Your task to perform on an android device: clear history in the chrome app Image 0: 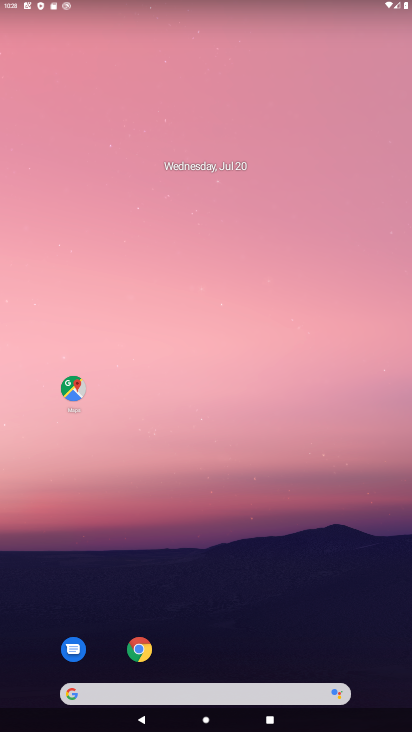
Step 0: click (133, 645)
Your task to perform on an android device: clear history in the chrome app Image 1: 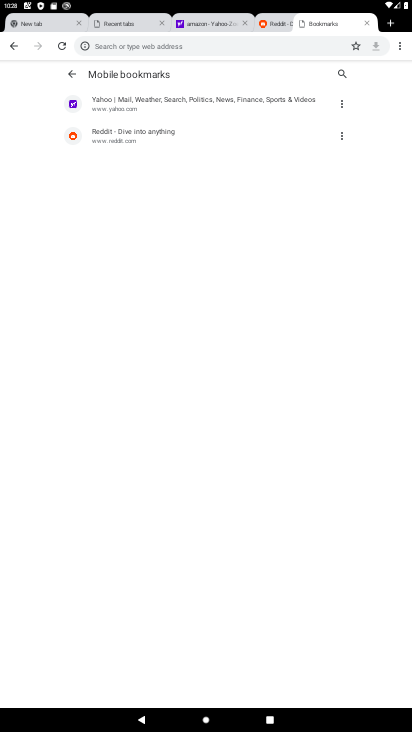
Step 1: click (401, 40)
Your task to perform on an android device: clear history in the chrome app Image 2: 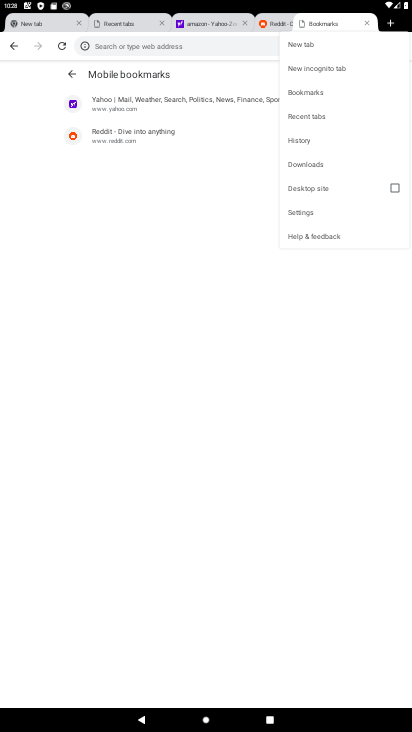
Step 2: click (301, 206)
Your task to perform on an android device: clear history in the chrome app Image 3: 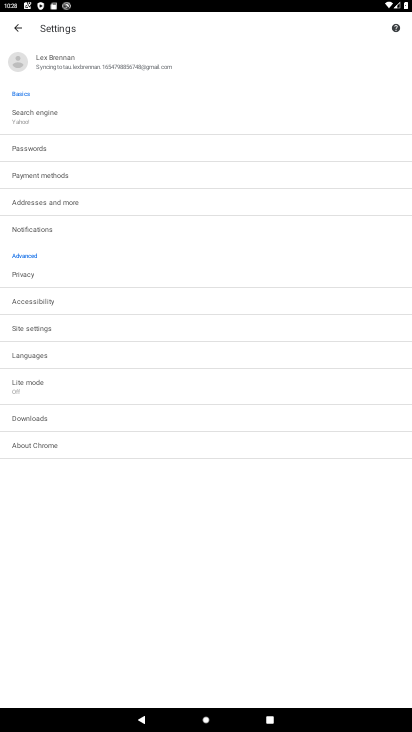
Step 3: task complete